Your task to perform on an android device: make emails show in primary in the gmail app Image 0: 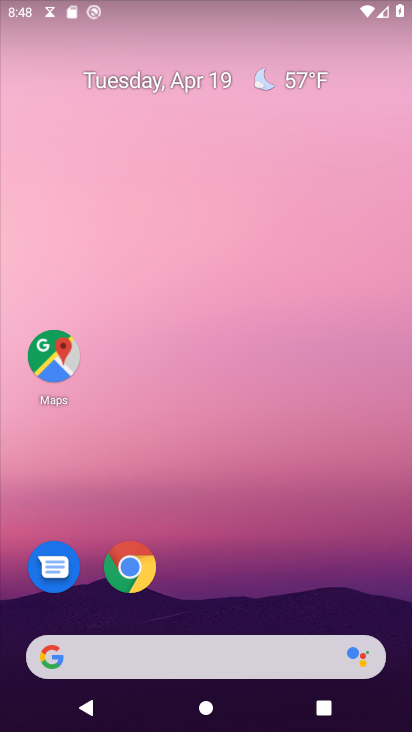
Step 0: drag from (258, 532) to (358, 127)
Your task to perform on an android device: make emails show in primary in the gmail app Image 1: 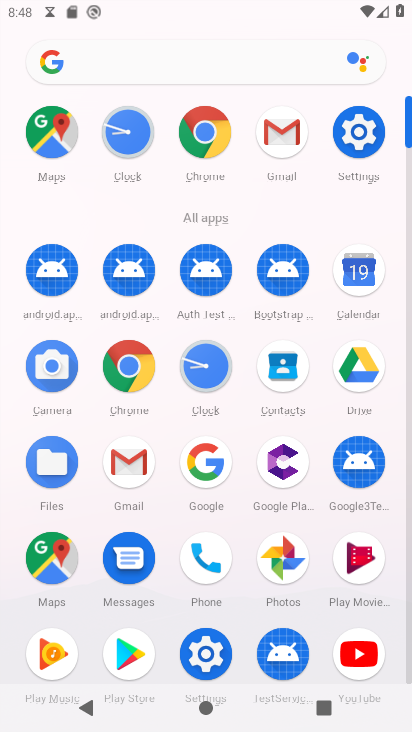
Step 1: click (299, 156)
Your task to perform on an android device: make emails show in primary in the gmail app Image 2: 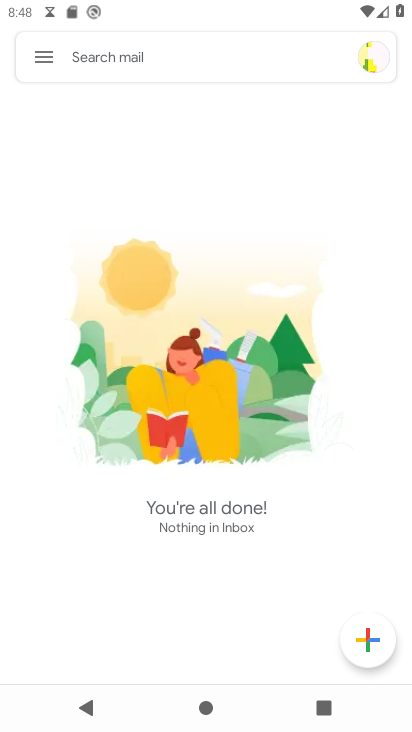
Step 2: click (31, 66)
Your task to perform on an android device: make emails show in primary in the gmail app Image 3: 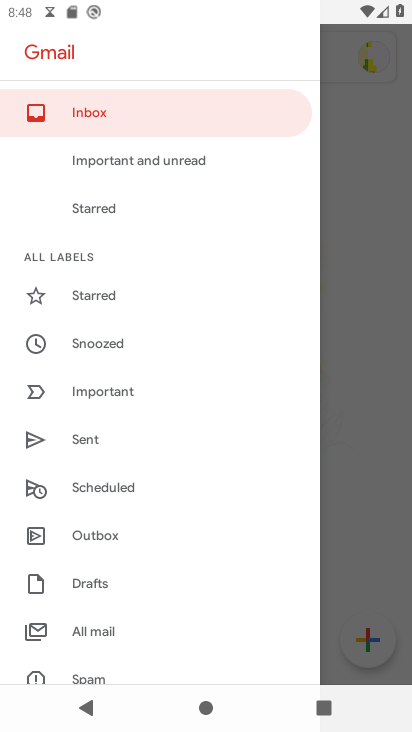
Step 3: drag from (199, 613) to (259, 226)
Your task to perform on an android device: make emails show in primary in the gmail app Image 4: 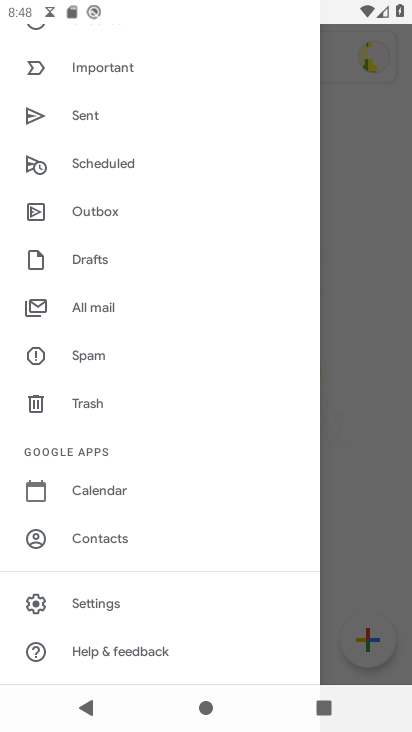
Step 4: click (79, 597)
Your task to perform on an android device: make emails show in primary in the gmail app Image 5: 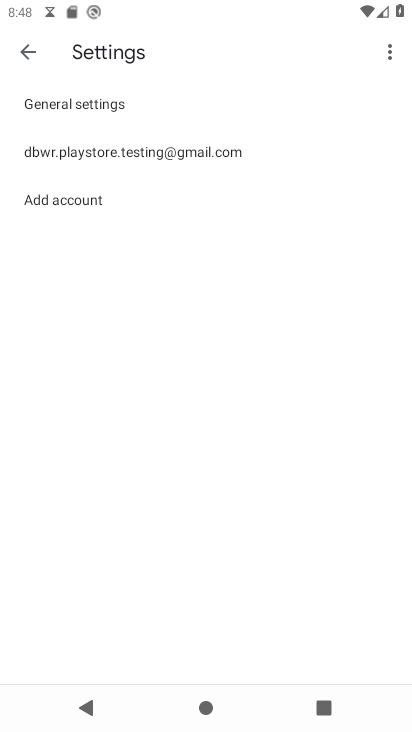
Step 5: click (89, 152)
Your task to perform on an android device: make emails show in primary in the gmail app Image 6: 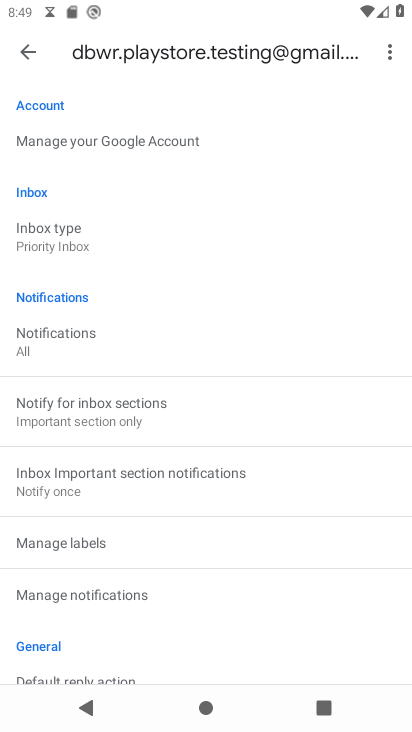
Step 6: click (62, 245)
Your task to perform on an android device: make emails show in primary in the gmail app Image 7: 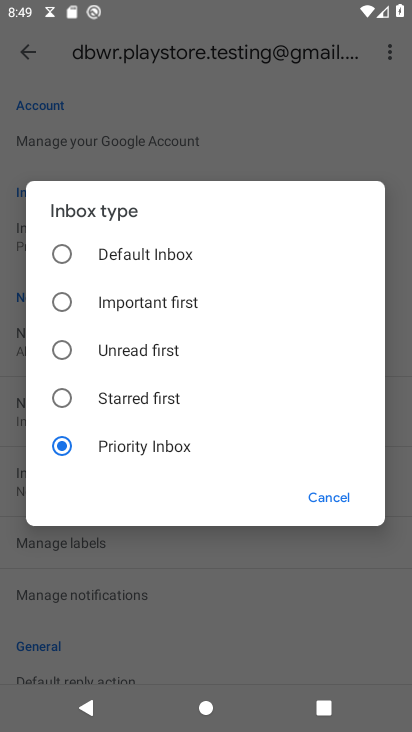
Step 7: click (57, 252)
Your task to perform on an android device: make emails show in primary in the gmail app Image 8: 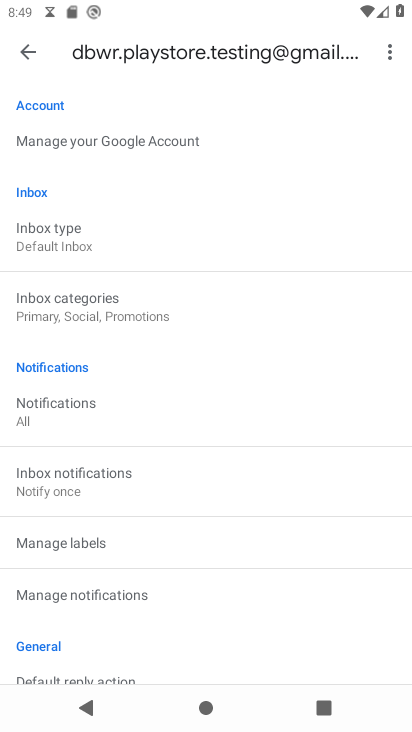
Step 8: task complete